Your task to perform on an android device: turn off location history Image 0: 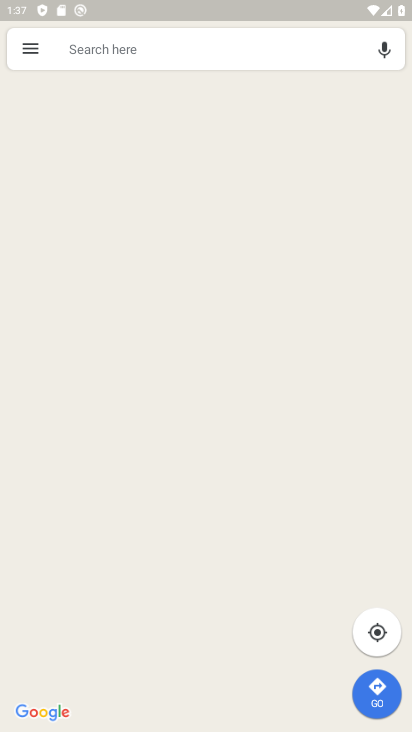
Step 0: drag from (297, 539) to (283, 226)
Your task to perform on an android device: turn off location history Image 1: 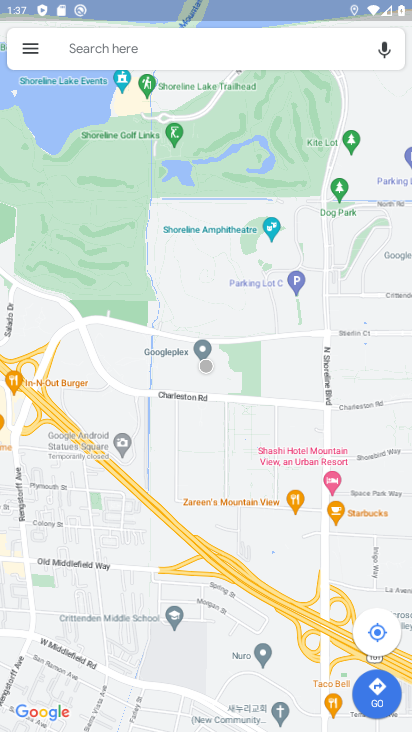
Step 1: click (49, 53)
Your task to perform on an android device: turn off location history Image 2: 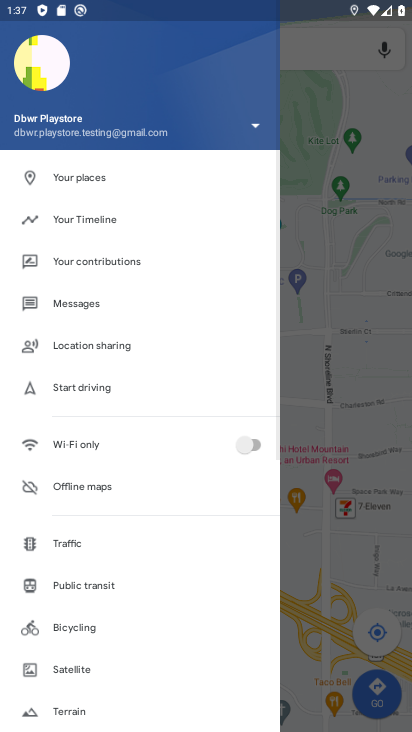
Step 2: click (121, 223)
Your task to perform on an android device: turn off location history Image 3: 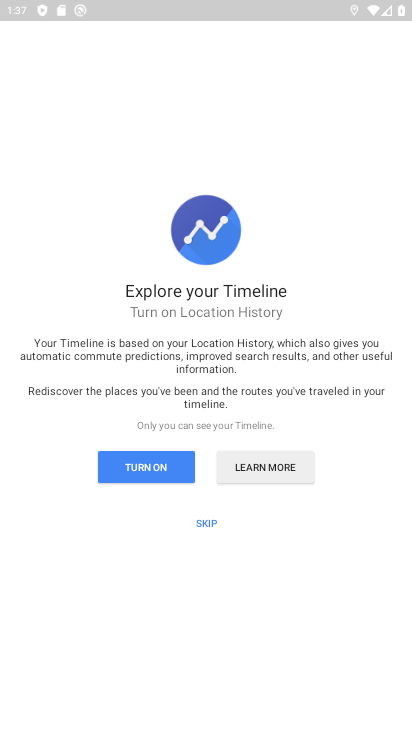
Step 3: click (203, 514)
Your task to perform on an android device: turn off location history Image 4: 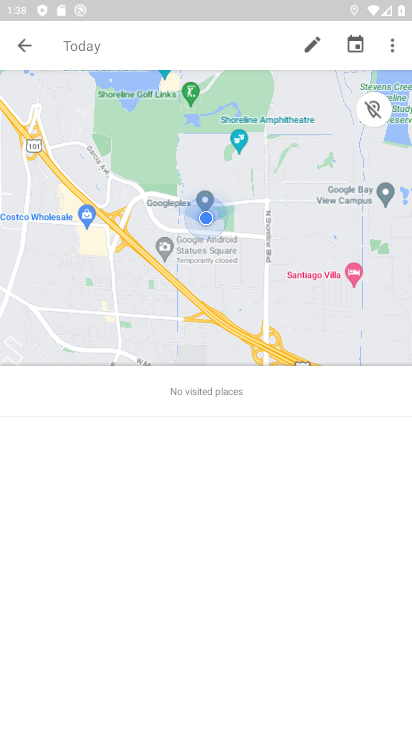
Step 4: click (392, 58)
Your task to perform on an android device: turn off location history Image 5: 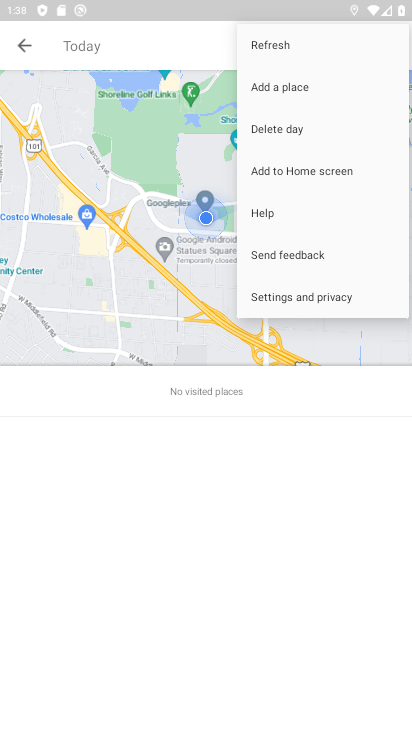
Step 5: click (301, 296)
Your task to perform on an android device: turn off location history Image 6: 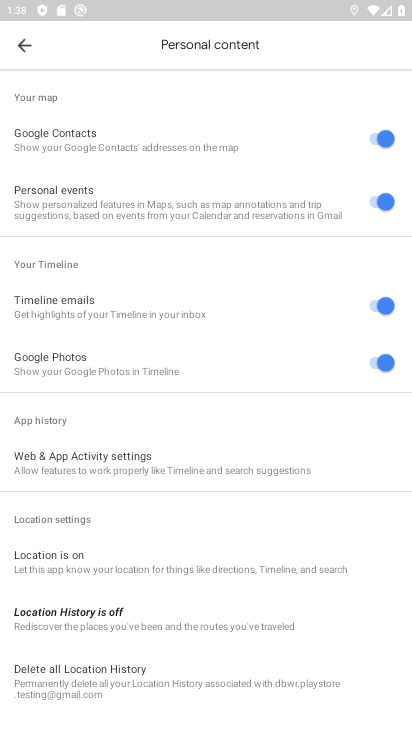
Step 6: click (99, 557)
Your task to perform on an android device: turn off location history Image 7: 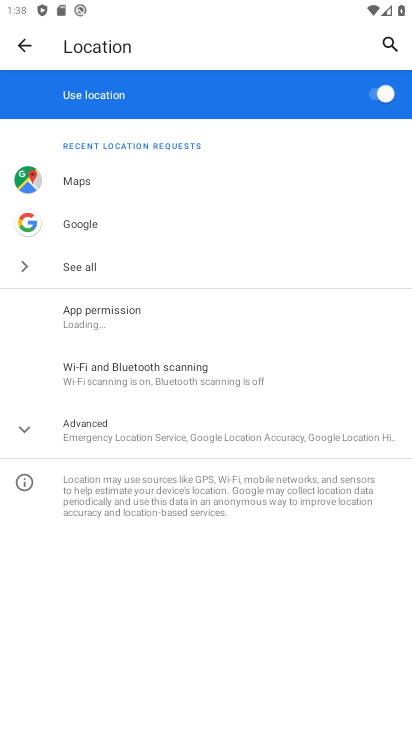
Step 7: click (377, 93)
Your task to perform on an android device: turn off location history Image 8: 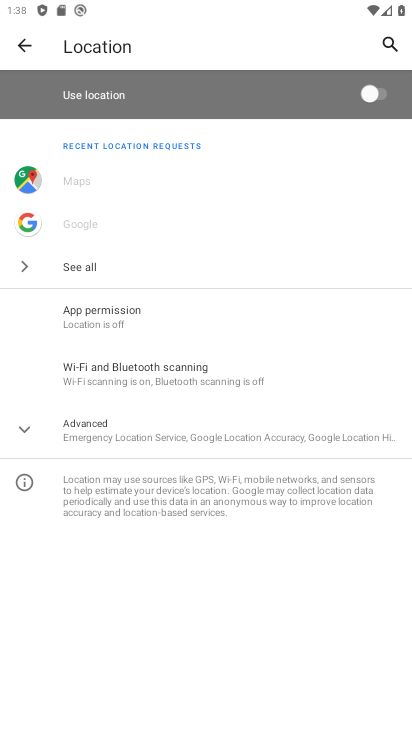
Step 8: task complete